Your task to perform on an android device: change notifications settings Image 0: 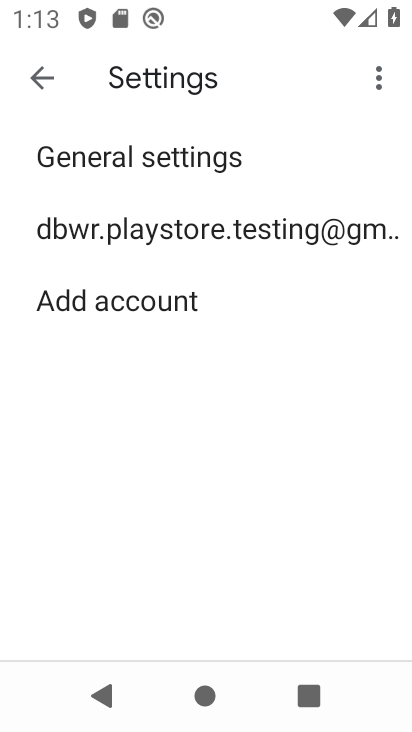
Step 0: press home button
Your task to perform on an android device: change notifications settings Image 1: 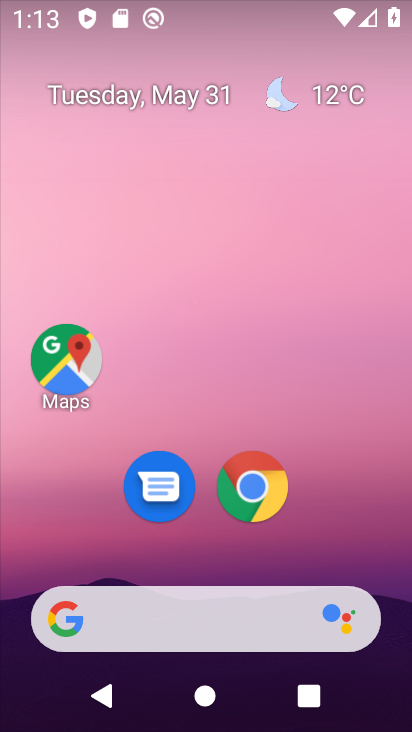
Step 1: drag from (207, 557) to (219, 125)
Your task to perform on an android device: change notifications settings Image 2: 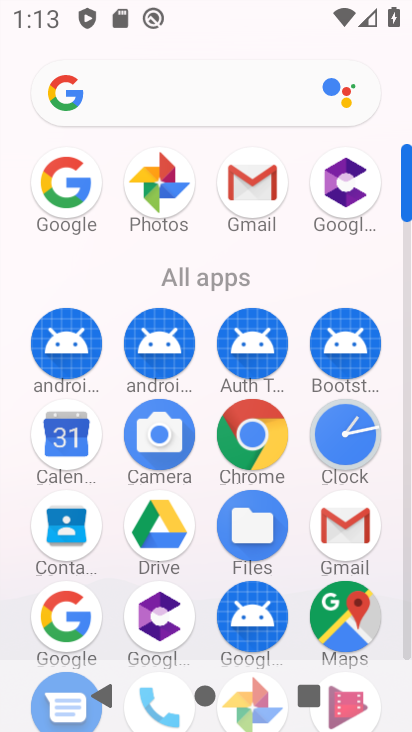
Step 2: click (312, 371)
Your task to perform on an android device: change notifications settings Image 3: 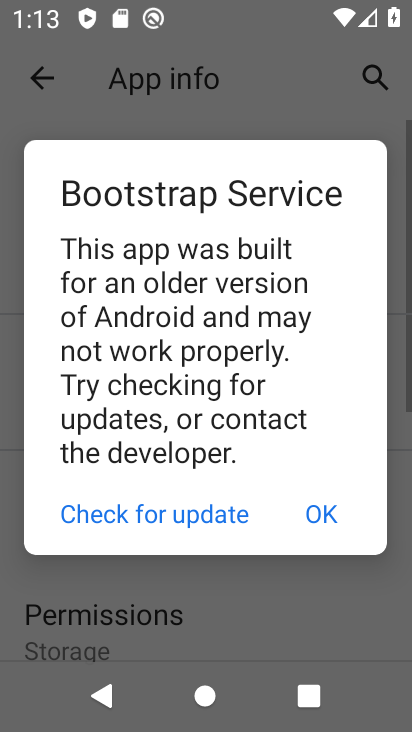
Step 3: click (313, 522)
Your task to perform on an android device: change notifications settings Image 4: 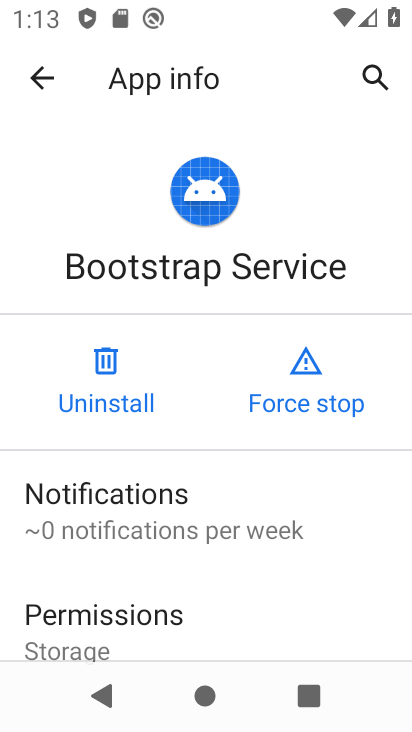
Step 4: press back button
Your task to perform on an android device: change notifications settings Image 5: 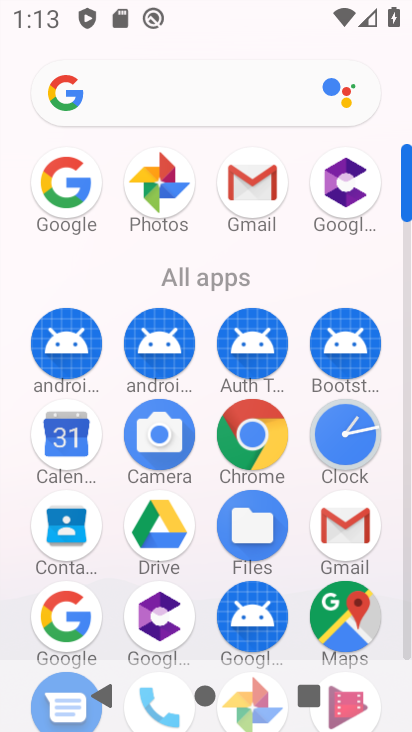
Step 5: drag from (191, 635) to (234, 222)
Your task to perform on an android device: change notifications settings Image 6: 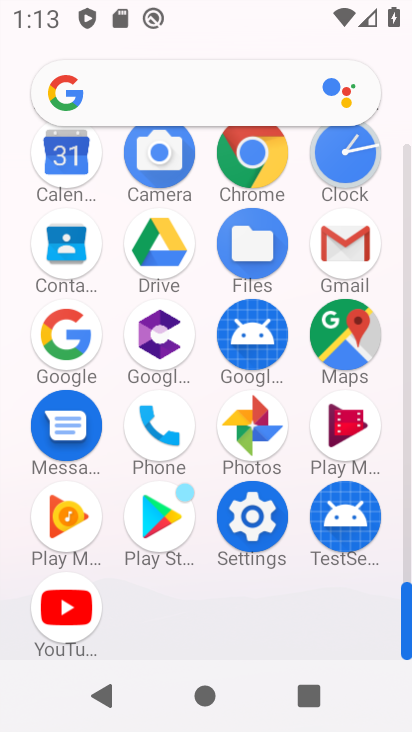
Step 6: click (239, 531)
Your task to perform on an android device: change notifications settings Image 7: 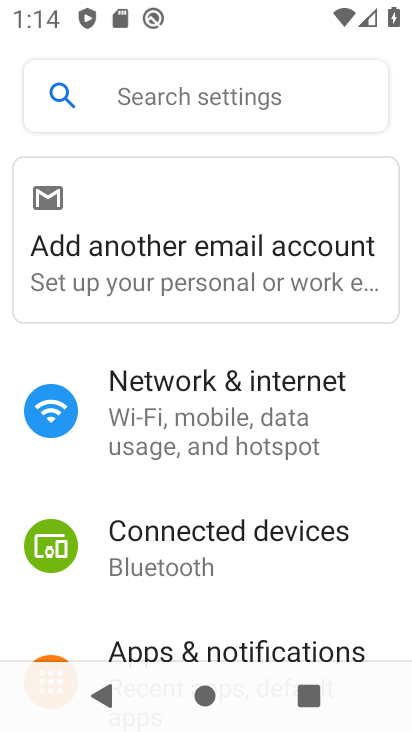
Step 7: drag from (254, 625) to (309, 292)
Your task to perform on an android device: change notifications settings Image 8: 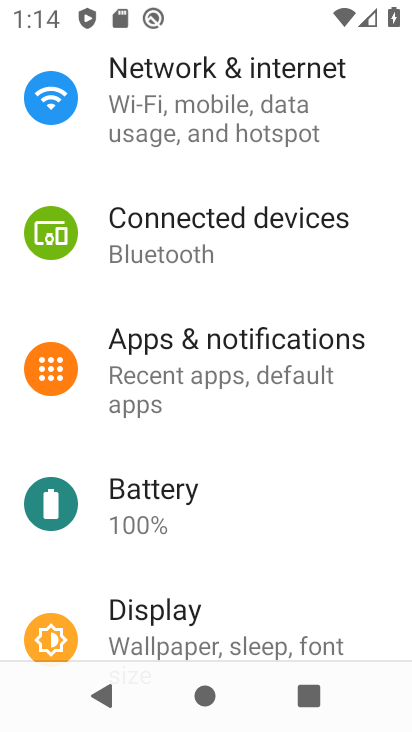
Step 8: click (299, 360)
Your task to perform on an android device: change notifications settings Image 9: 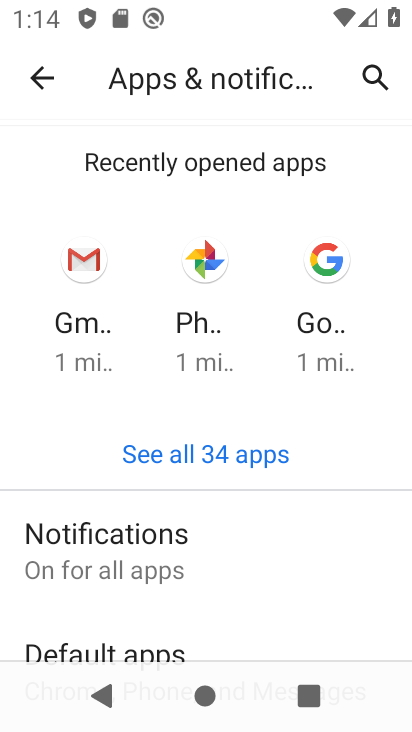
Step 9: click (175, 552)
Your task to perform on an android device: change notifications settings Image 10: 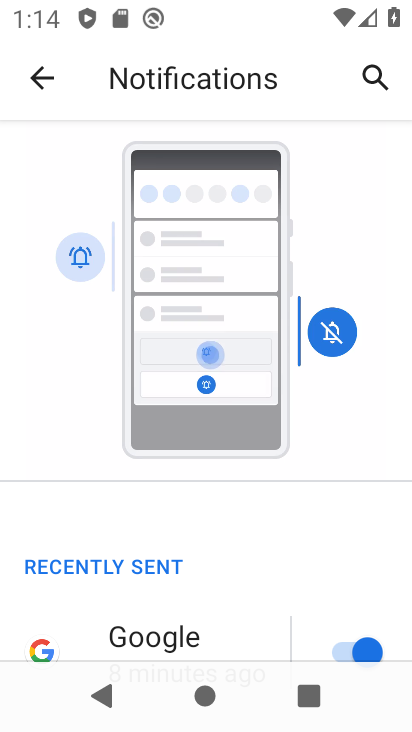
Step 10: drag from (233, 617) to (233, 236)
Your task to perform on an android device: change notifications settings Image 11: 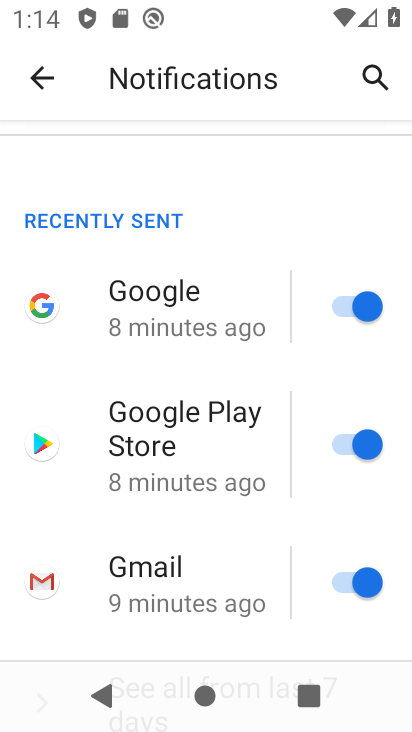
Step 11: drag from (213, 580) to (240, 270)
Your task to perform on an android device: change notifications settings Image 12: 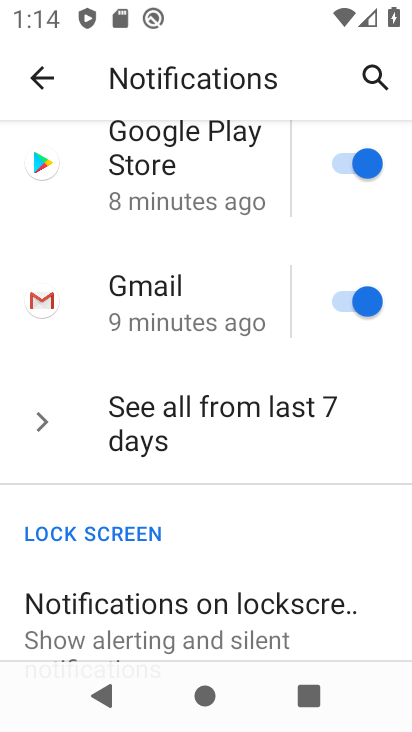
Step 12: drag from (171, 640) to (173, 360)
Your task to perform on an android device: change notifications settings Image 13: 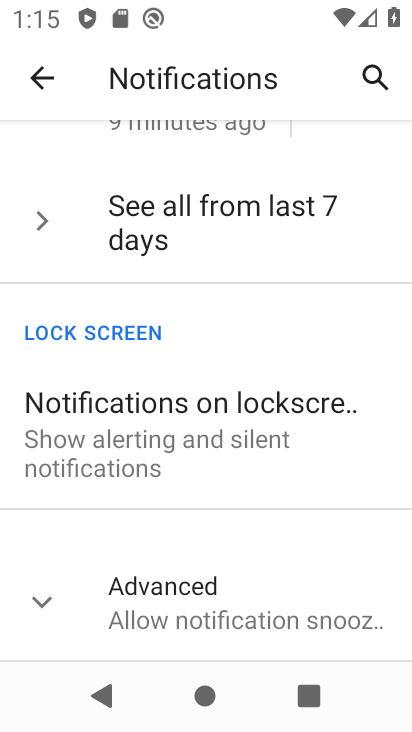
Step 13: click (163, 594)
Your task to perform on an android device: change notifications settings Image 14: 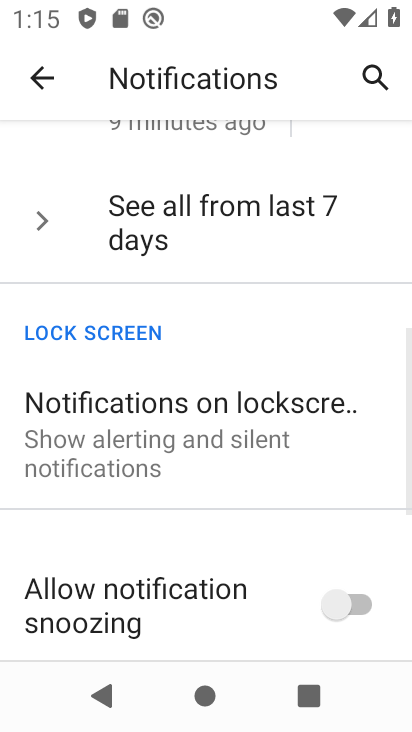
Step 14: drag from (160, 616) to (223, 342)
Your task to perform on an android device: change notifications settings Image 15: 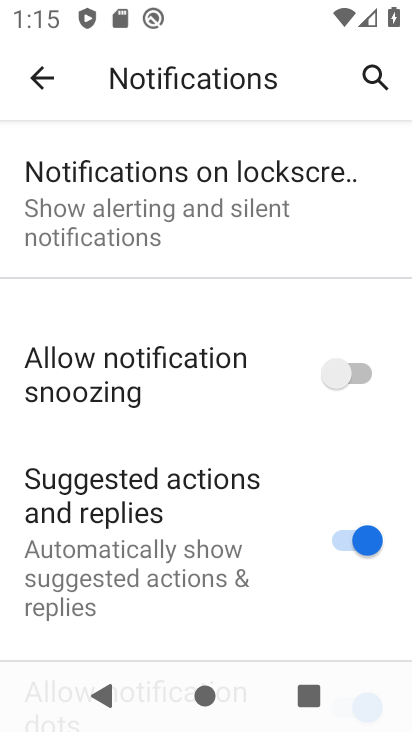
Step 15: drag from (216, 569) to (238, 354)
Your task to perform on an android device: change notifications settings Image 16: 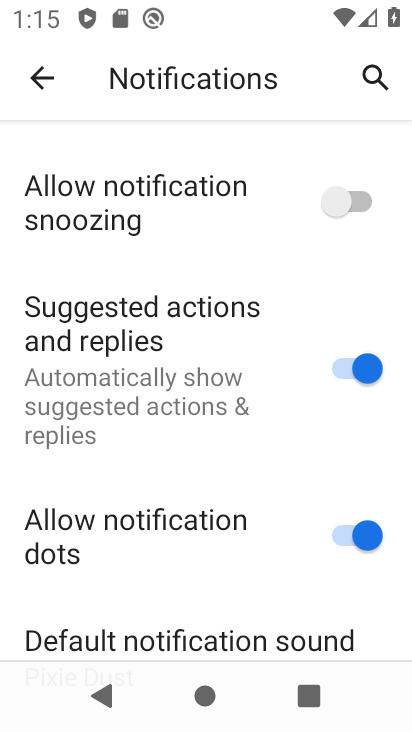
Step 16: drag from (193, 547) to (192, 342)
Your task to perform on an android device: change notifications settings Image 17: 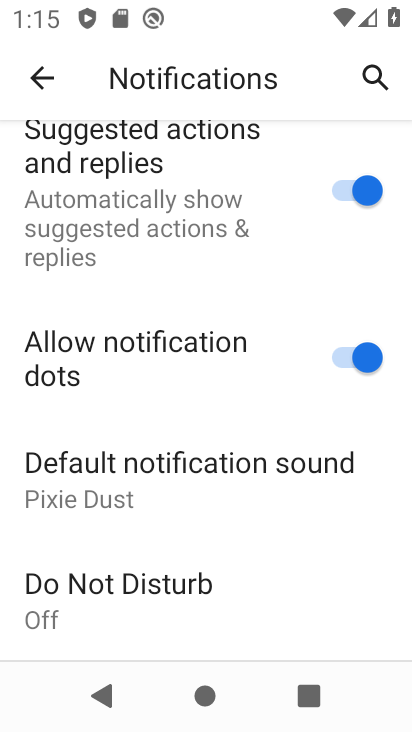
Step 17: drag from (206, 248) to (206, 623)
Your task to perform on an android device: change notifications settings Image 18: 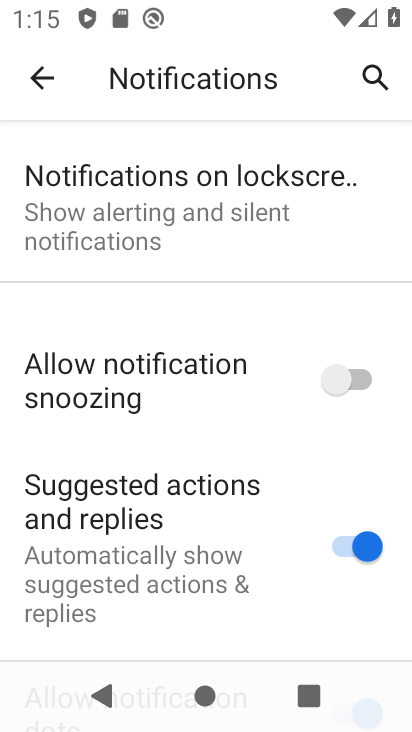
Step 18: click (157, 220)
Your task to perform on an android device: change notifications settings Image 19: 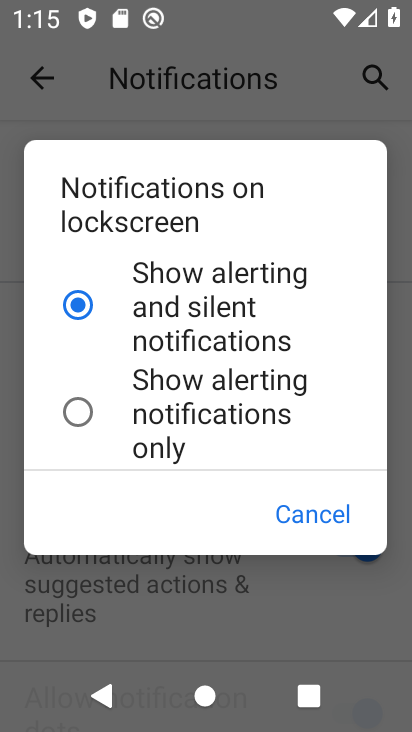
Step 19: click (79, 410)
Your task to perform on an android device: change notifications settings Image 20: 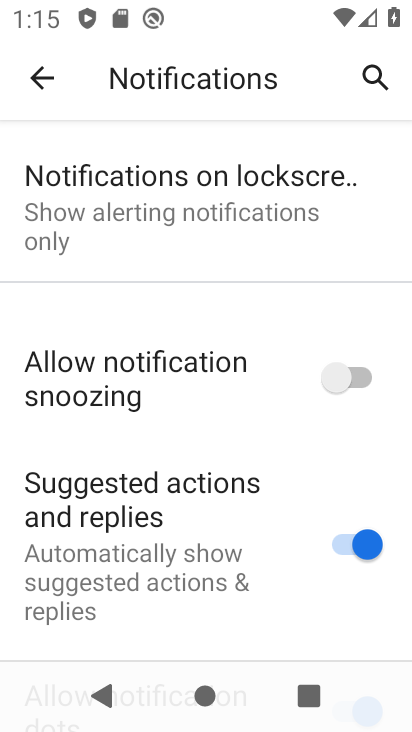
Step 20: task complete